Your task to perform on an android device: choose inbox layout in the gmail app Image 0: 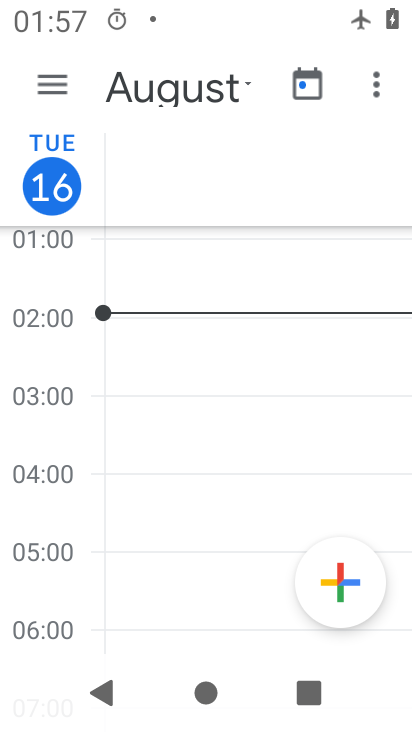
Step 0: press home button
Your task to perform on an android device: choose inbox layout in the gmail app Image 1: 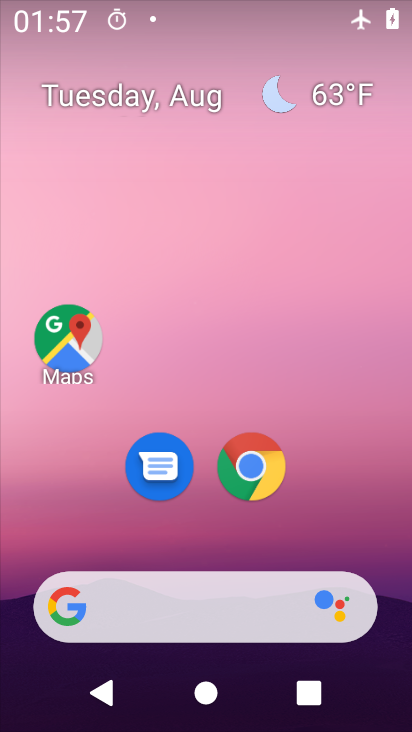
Step 1: drag from (352, 541) to (355, 94)
Your task to perform on an android device: choose inbox layout in the gmail app Image 2: 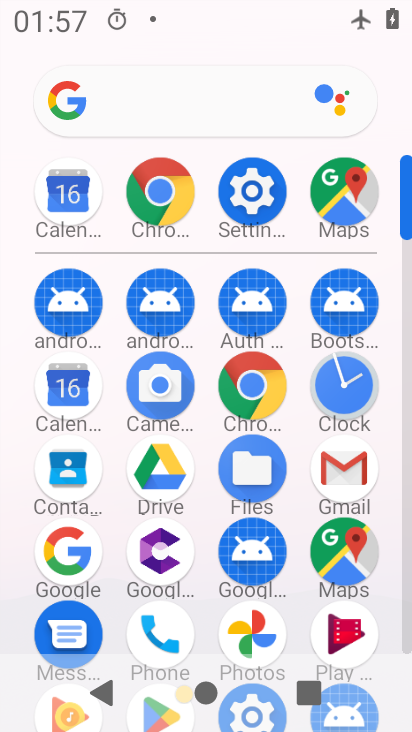
Step 2: click (346, 469)
Your task to perform on an android device: choose inbox layout in the gmail app Image 3: 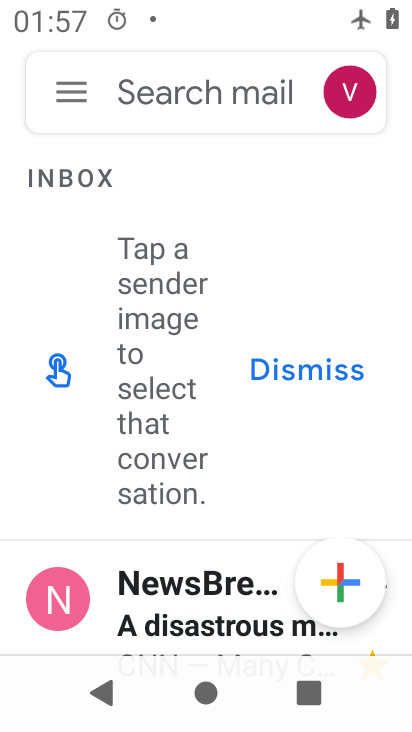
Step 3: click (72, 92)
Your task to perform on an android device: choose inbox layout in the gmail app Image 4: 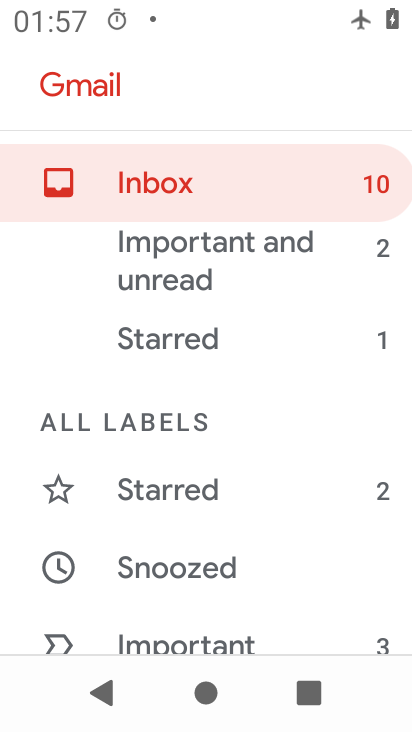
Step 4: drag from (270, 418) to (272, 337)
Your task to perform on an android device: choose inbox layout in the gmail app Image 5: 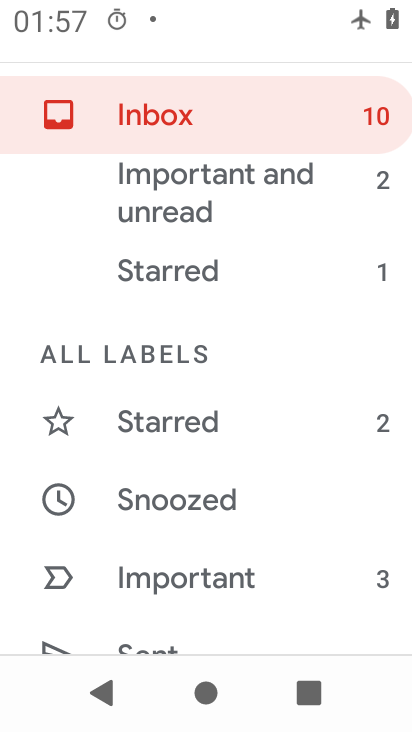
Step 5: drag from (265, 446) to (283, 343)
Your task to perform on an android device: choose inbox layout in the gmail app Image 6: 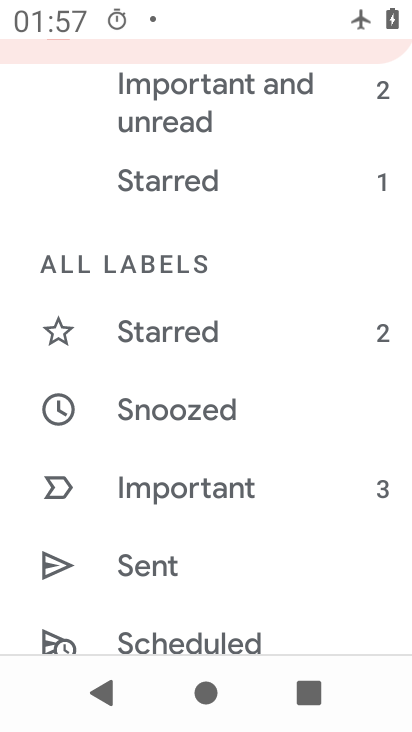
Step 6: drag from (280, 439) to (294, 340)
Your task to perform on an android device: choose inbox layout in the gmail app Image 7: 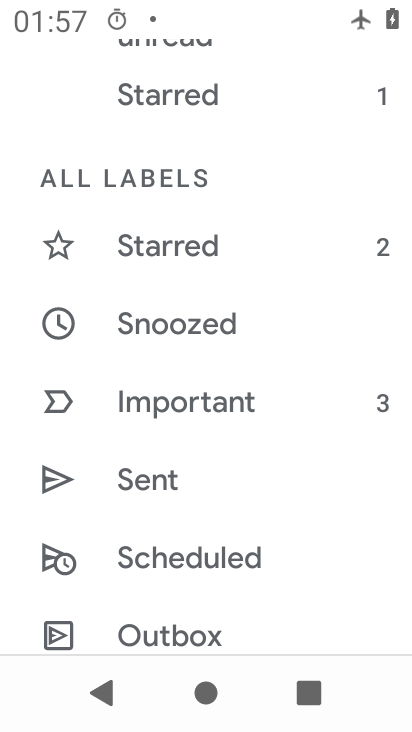
Step 7: drag from (278, 456) to (293, 359)
Your task to perform on an android device: choose inbox layout in the gmail app Image 8: 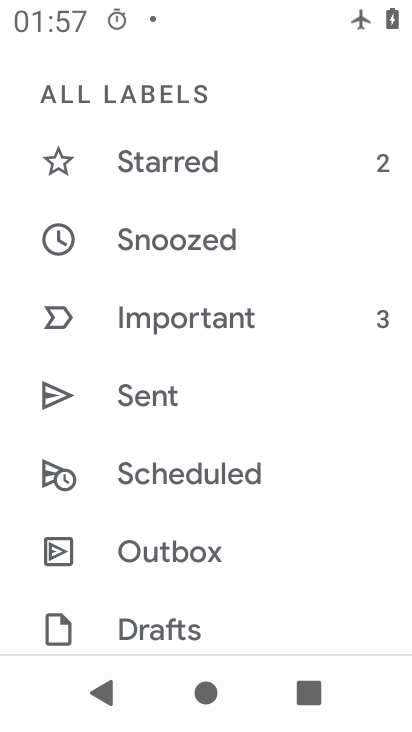
Step 8: drag from (302, 492) to (303, 387)
Your task to perform on an android device: choose inbox layout in the gmail app Image 9: 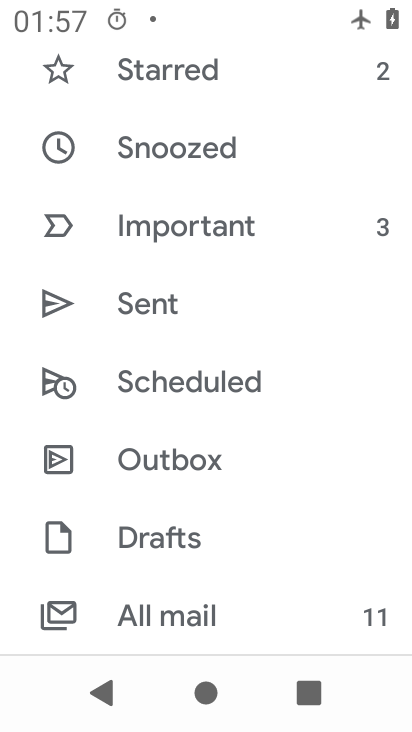
Step 9: drag from (274, 522) to (288, 408)
Your task to perform on an android device: choose inbox layout in the gmail app Image 10: 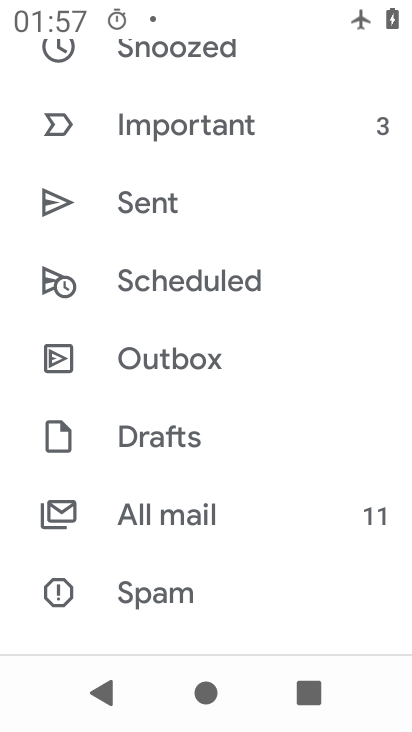
Step 10: drag from (273, 531) to (275, 390)
Your task to perform on an android device: choose inbox layout in the gmail app Image 11: 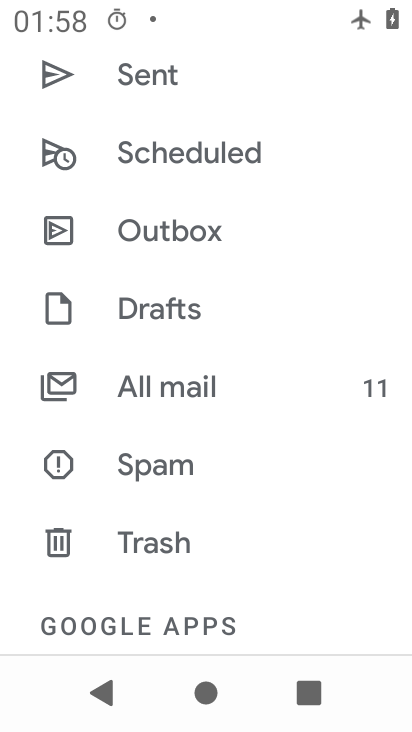
Step 11: drag from (258, 548) to (271, 369)
Your task to perform on an android device: choose inbox layout in the gmail app Image 12: 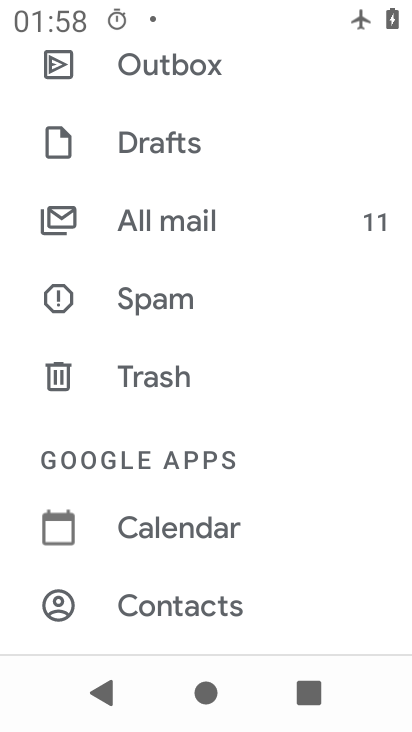
Step 12: drag from (268, 531) to (263, 361)
Your task to perform on an android device: choose inbox layout in the gmail app Image 13: 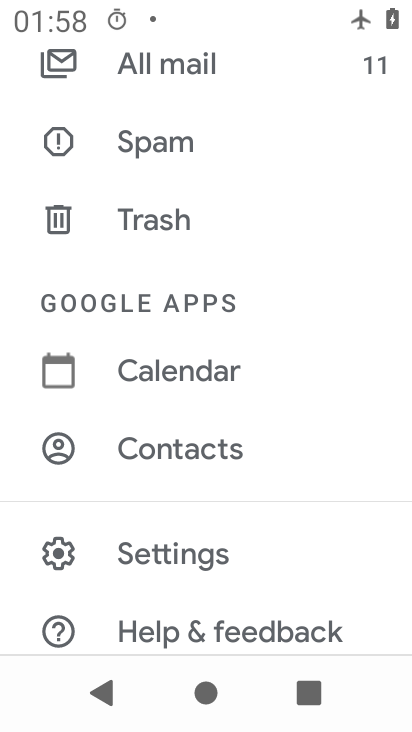
Step 13: drag from (256, 544) to (263, 376)
Your task to perform on an android device: choose inbox layout in the gmail app Image 14: 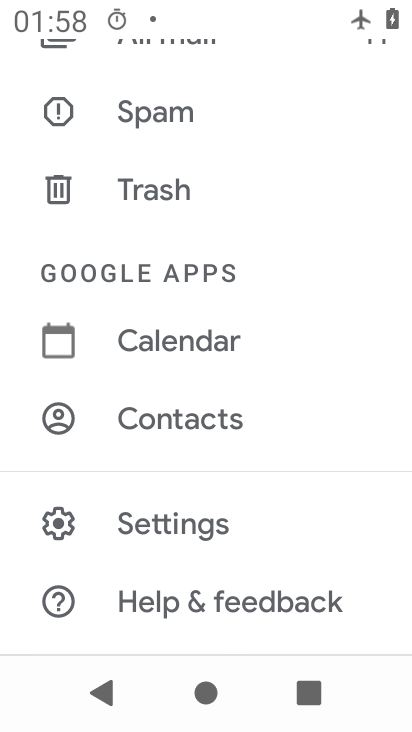
Step 14: click (235, 529)
Your task to perform on an android device: choose inbox layout in the gmail app Image 15: 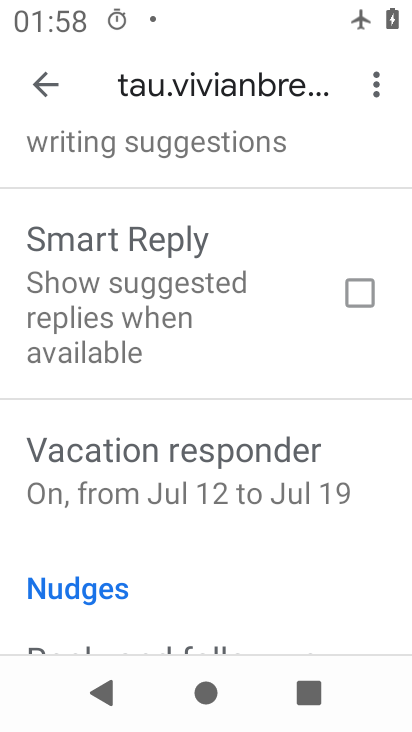
Step 15: drag from (273, 302) to (273, 412)
Your task to perform on an android device: choose inbox layout in the gmail app Image 16: 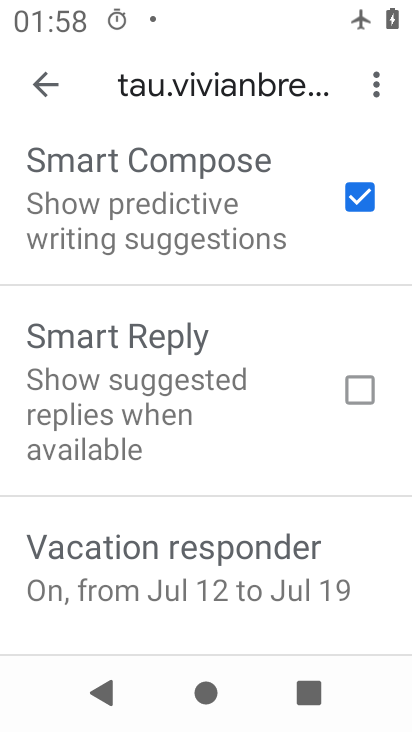
Step 16: drag from (288, 235) to (290, 435)
Your task to perform on an android device: choose inbox layout in the gmail app Image 17: 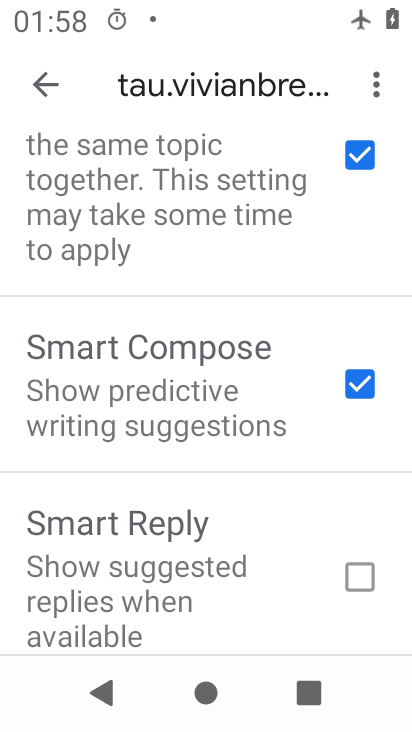
Step 17: drag from (325, 185) to (317, 376)
Your task to perform on an android device: choose inbox layout in the gmail app Image 18: 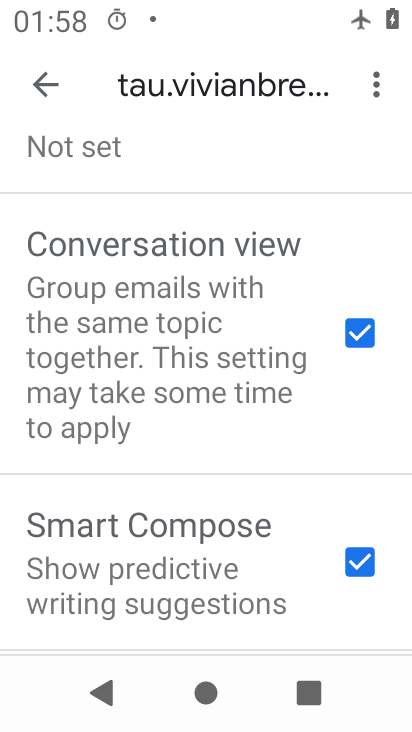
Step 18: drag from (305, 161) to (289, 329)
Your task to perform on an android device: choose inbox layout in the gmail app Image 19: 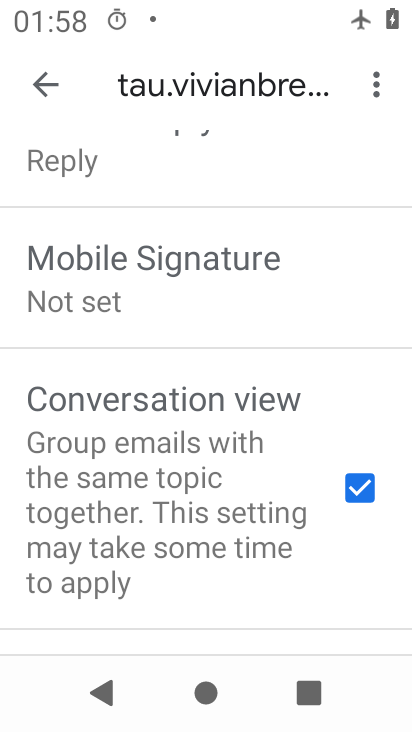
Step 19: drag from (279, 178) to (280, 350)
Your task to perform on an android device: choose inbox layout in the gmail app Image 20: 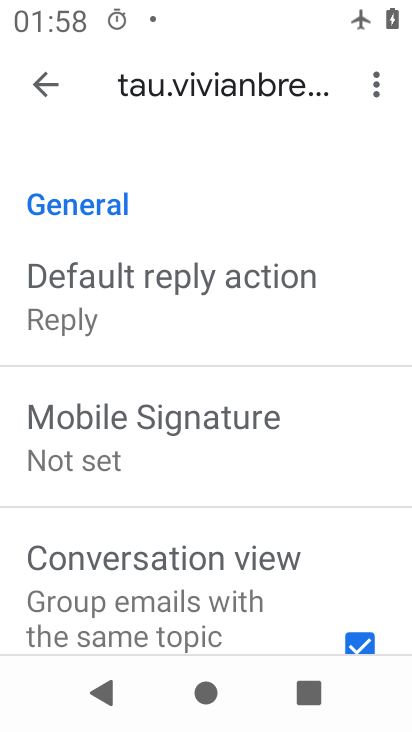
Step 20: drag from (266, 168) to (264, 367)
Your task to perform on an android device: choose inbox layout in the gmail app Image 21: 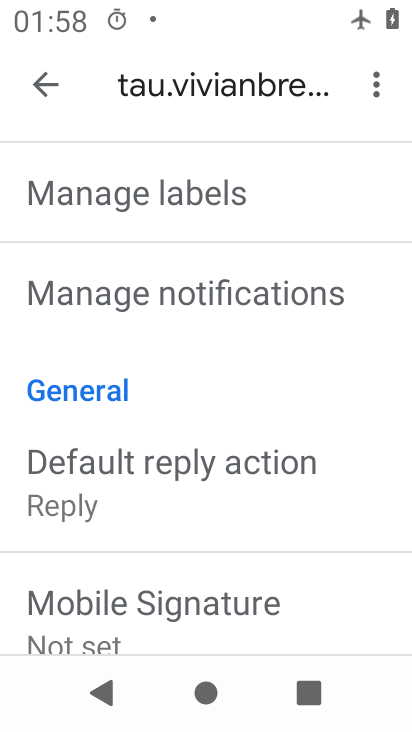
Step 21: drag from (295, 234) to (279, 436)
Your task to perform on an android device: choose inbox layout in the gmail app Image 22: 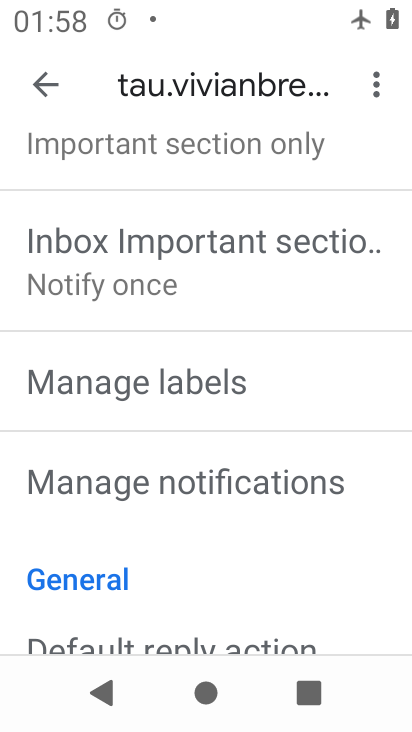
Step 22: drag from (282, 180) to (284, 400)
Your task to perform on an android device: choose inbox layout in the gmail app Image 23: 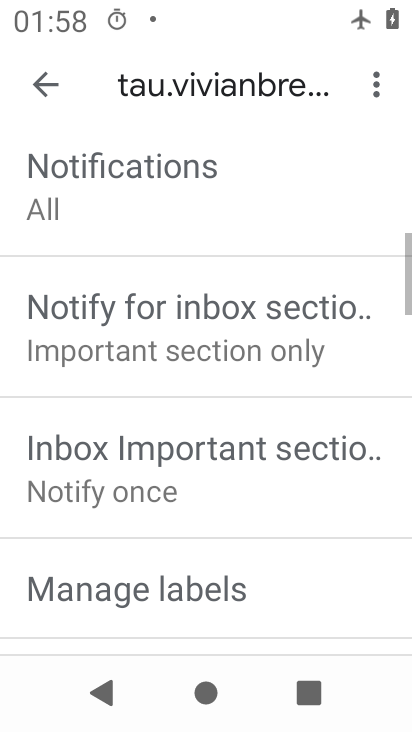
Step 23: drag from (266, 142) to (269, 366)
Your task to perform on an android device: choose inbox layout in the gmail app Image 24: 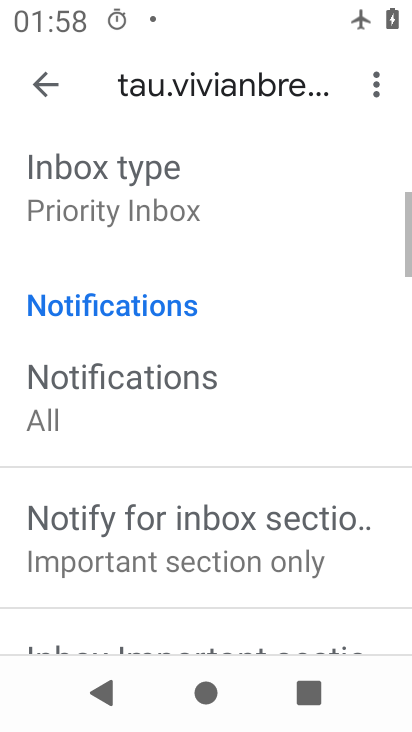
Step 24: drag from (266, 138) to (262, 365)
Your task to perform on an android device: choose inbox layout in the gmail app Image 25: 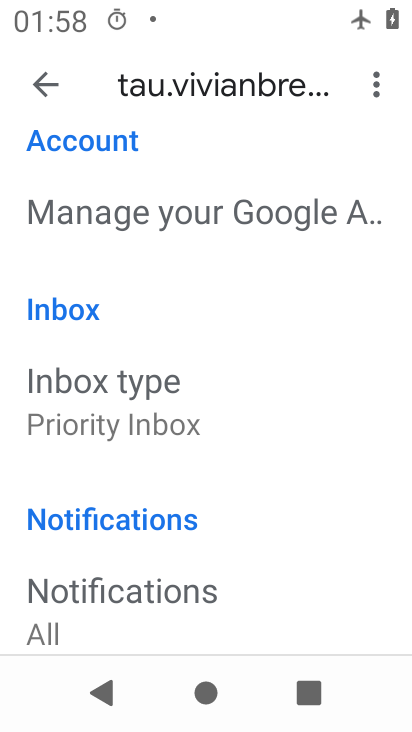
Step 25: click (137, 392)
Your task to perform on an android device: choose inbox layout in the gmail app Image 26: 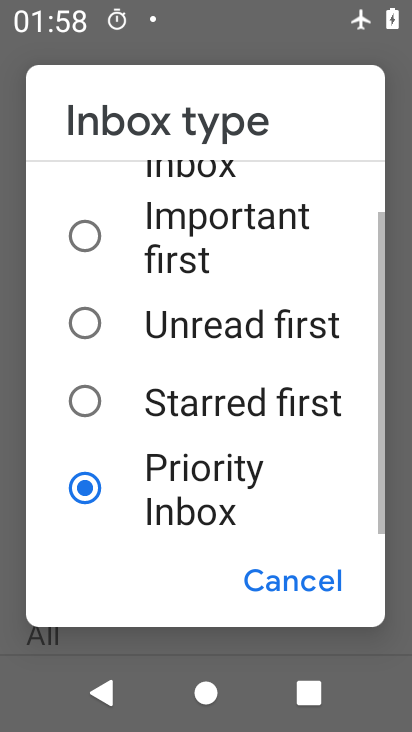
Step 26: click (203, 328)
Your task to perform on an android device: choose inbox layout in the gmail app Image 27: 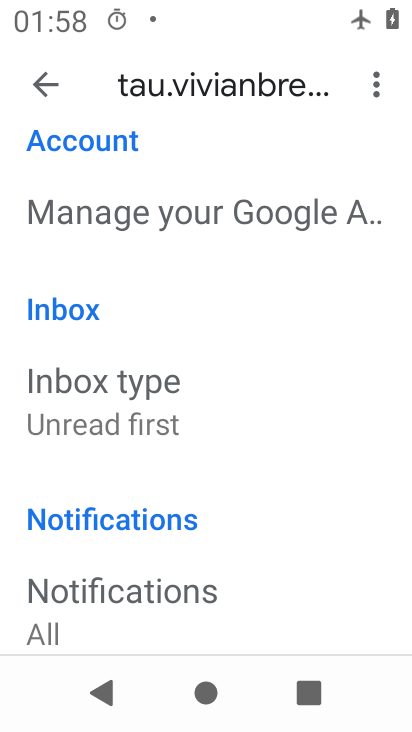
Step 27: task complete